Your task to perform on an android device: clear all cookies in the chrome app Image 0: 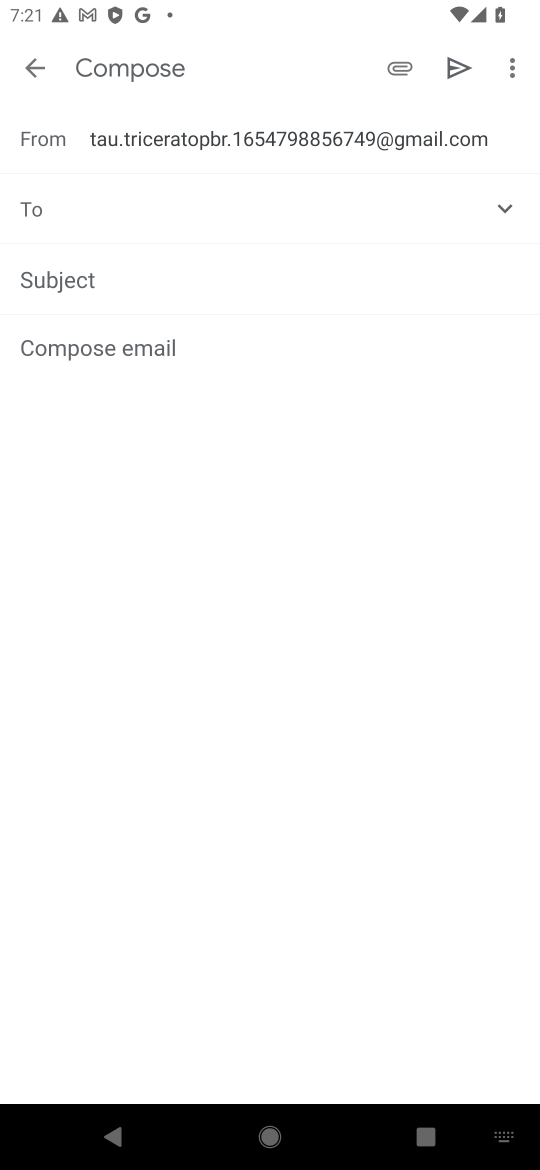
Step 0: press home button
Your task to perform on an android device: clear all cookies in the chrome app Image 1: 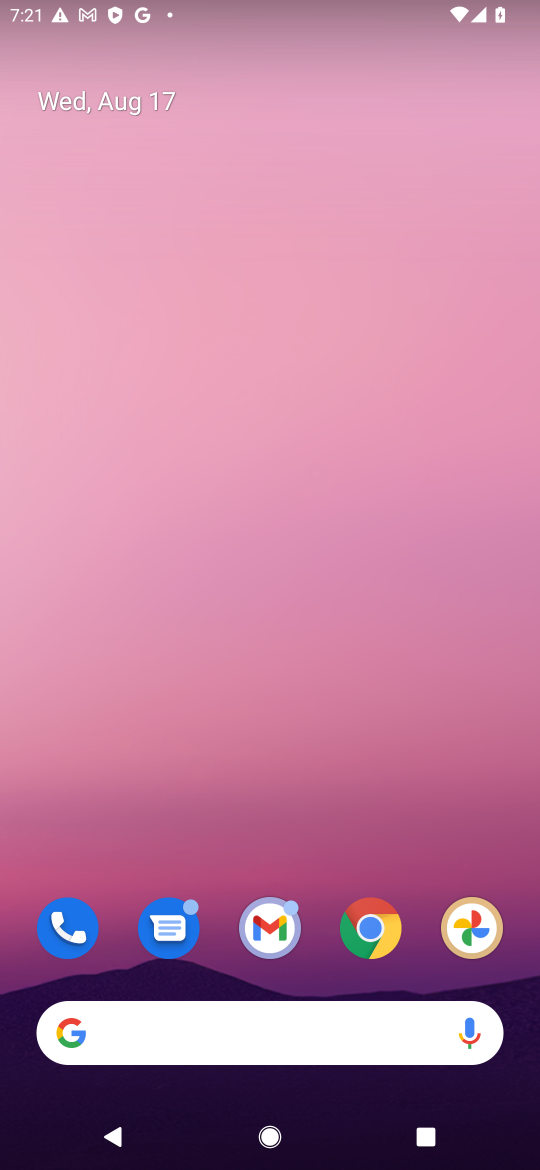
Step 1: click (362, 920)
Your task to perform on an android device: clear all cookies in the chrome app Image 2: 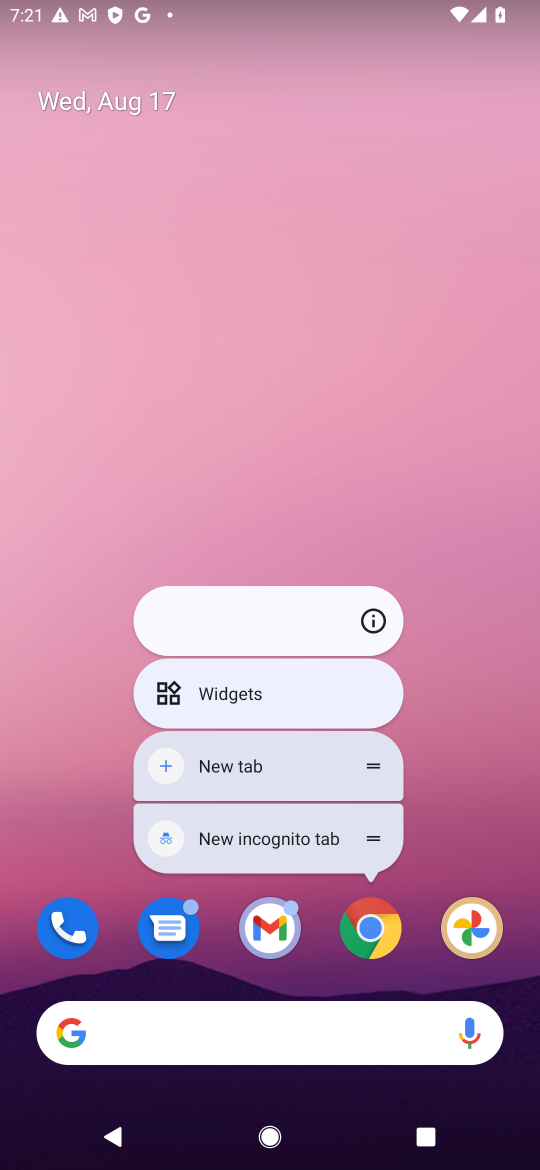
Step 2: click (362, 920)
Your task to perform on an android device: clear all cookies in the chrome app Image 3: 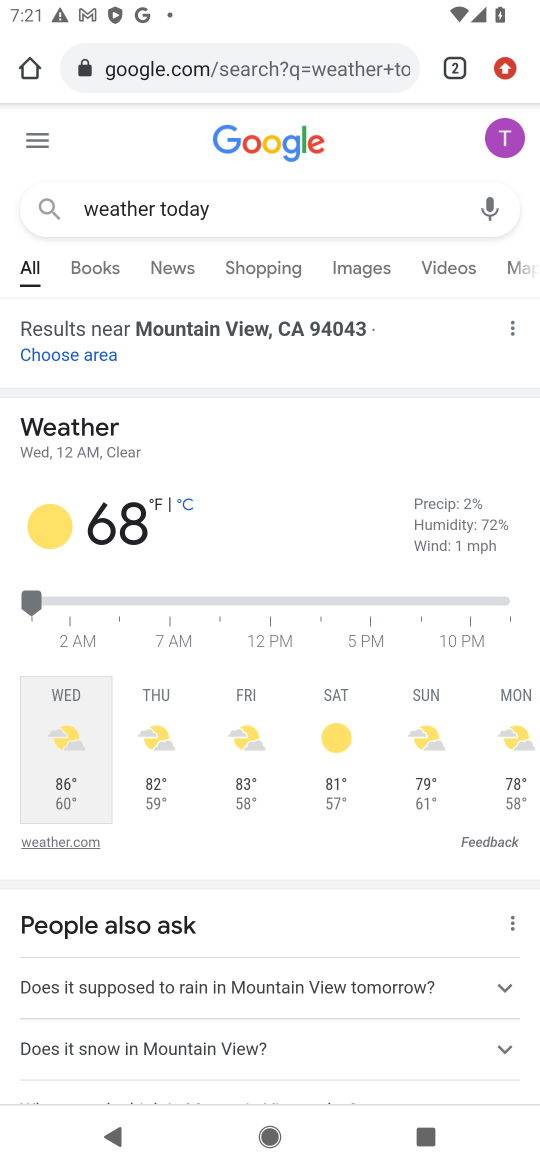
Step 3: drag from (503, 71) to (331, 345)
Your task to perform on an android device: clear all cookies in the chrome app Image 4: 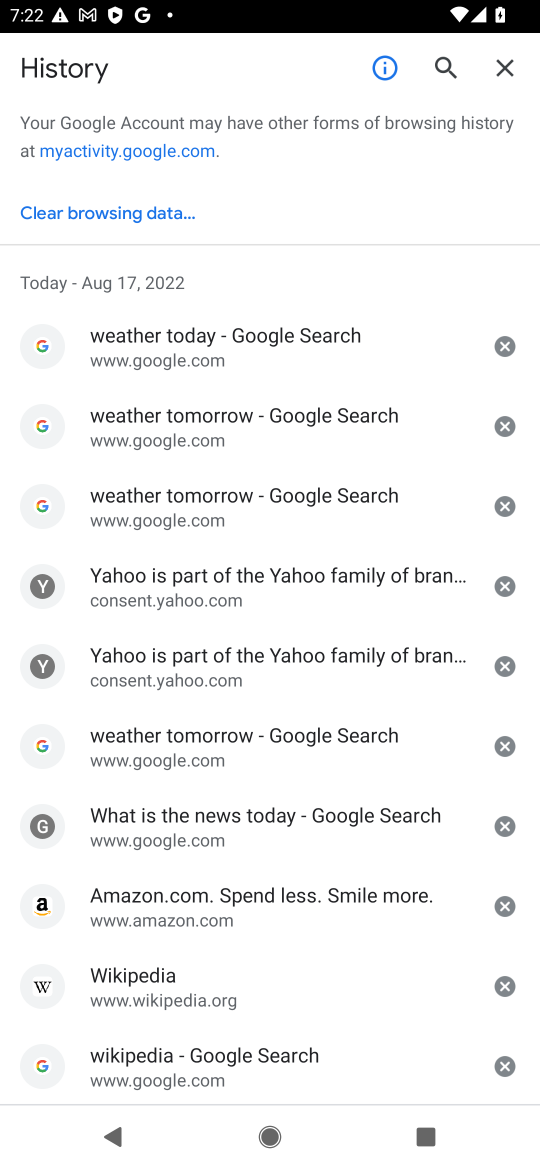
Step 4: click (106, 208)
Your task to perform on an android device: clear all cookies in the chrome app Image 5: 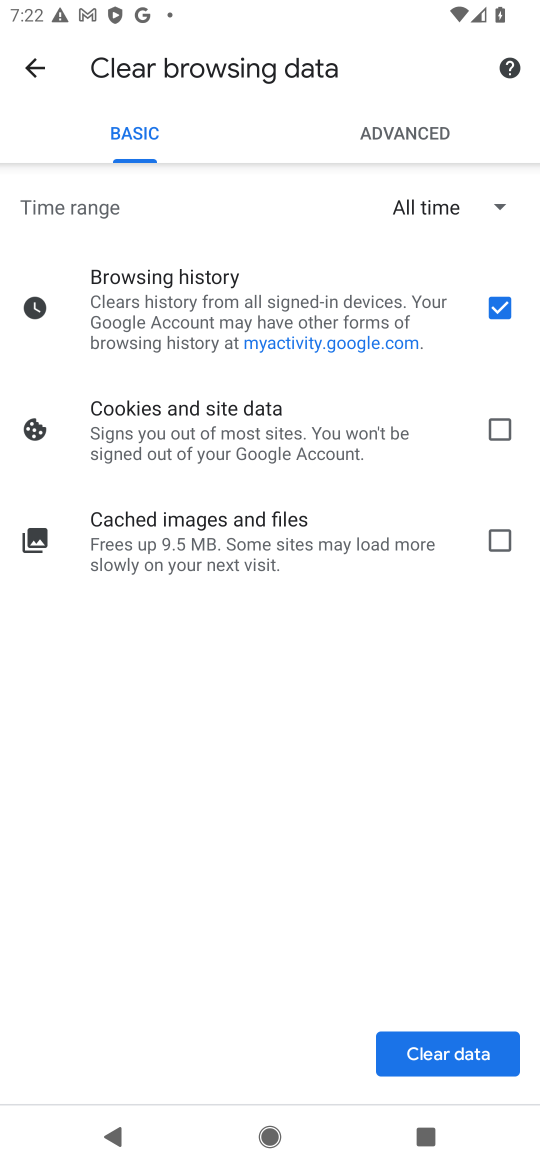
Step 5: click (497, 439)
Your task to perform on an android device: clear all cookies in the chrome app Image 6: 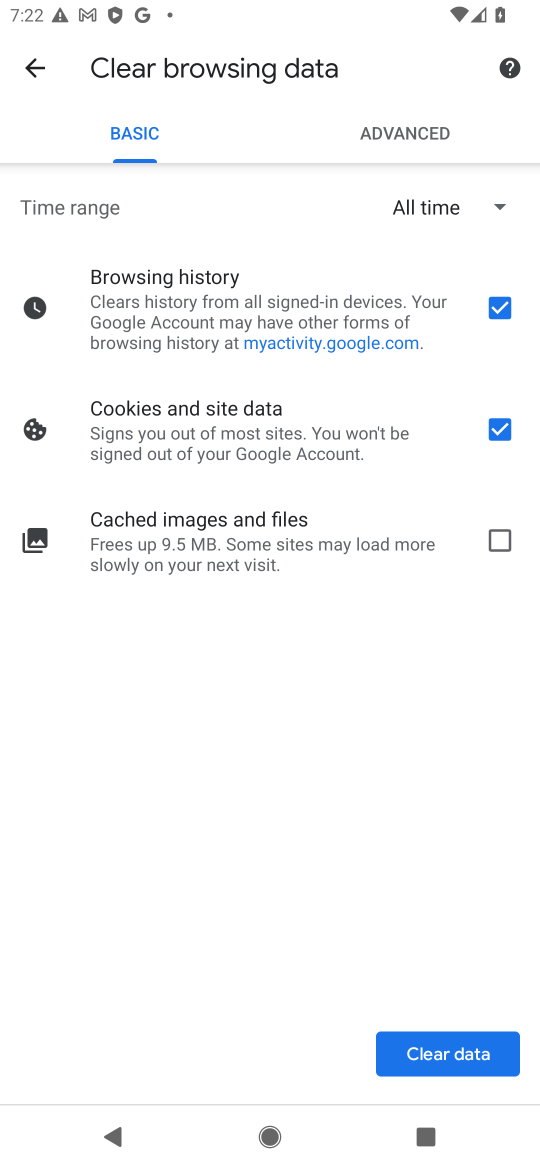
Step 6: click (481, 303)
Your task to perform on an android device: clear all cookies in the chrome app Image 7: 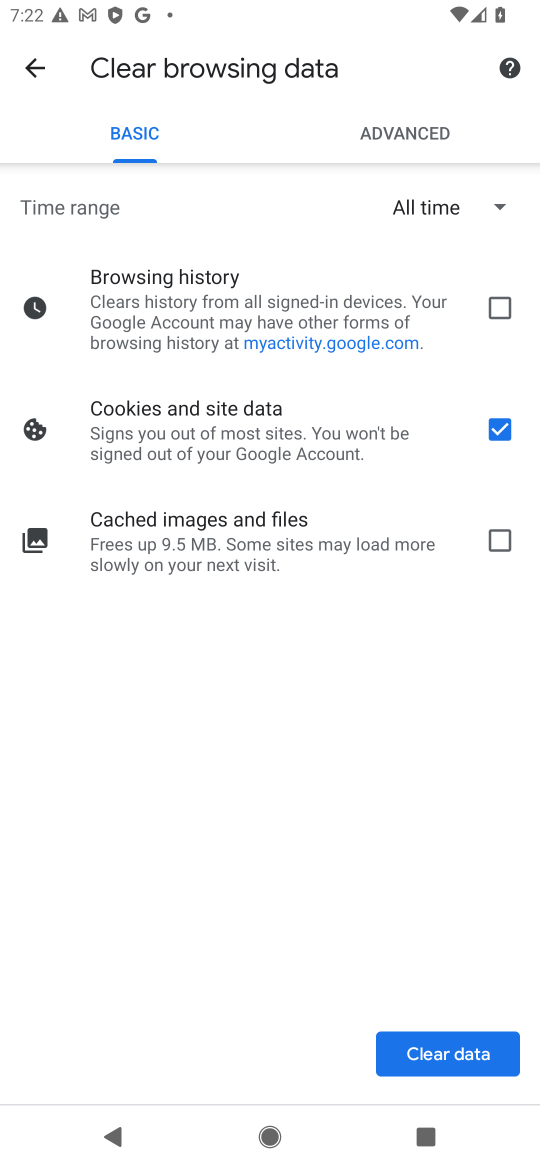
Step 7: click (461, 1047)
Your task to perform on an android device: clear all cookies in the chrome app Image 8: 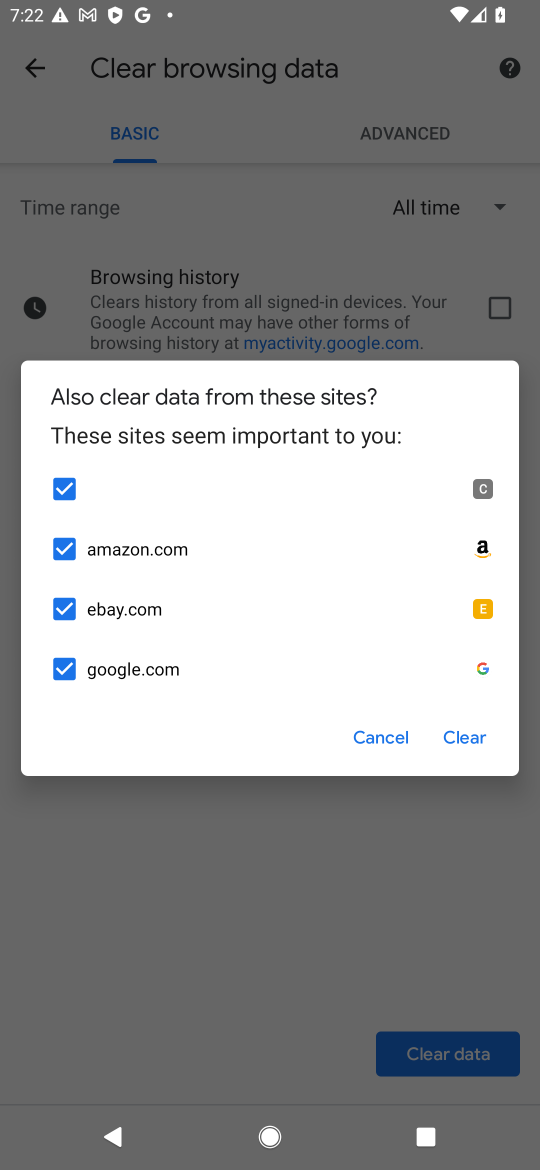
Step 8: click (464, 749)
Your task to perform on an android device: clear all cookies in the chrome app Image 9: 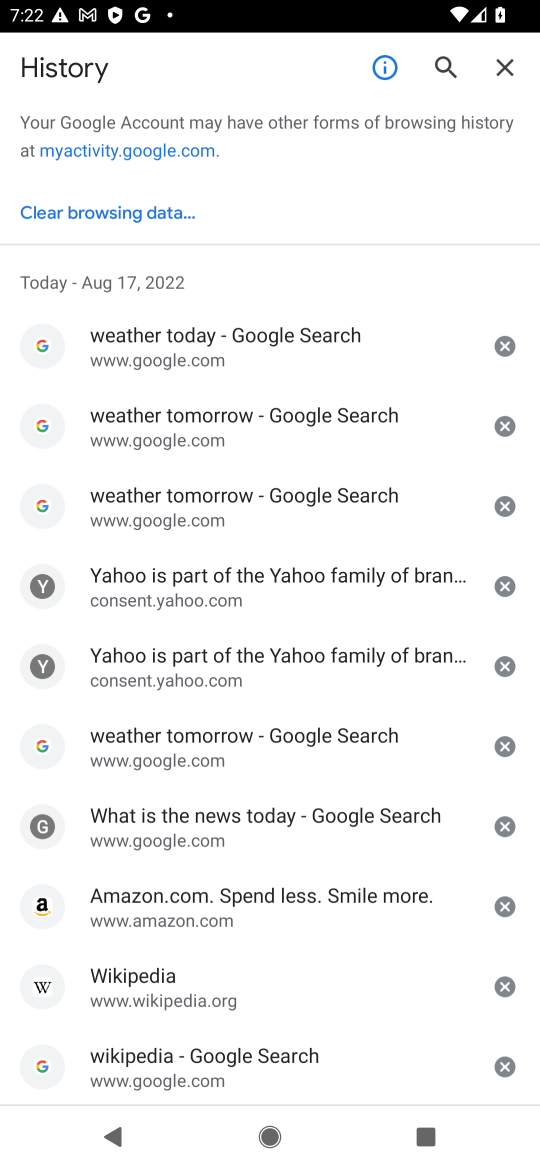
Step 9: task complete